Your task to perform on an android device: Go to CNN.com Image 0: 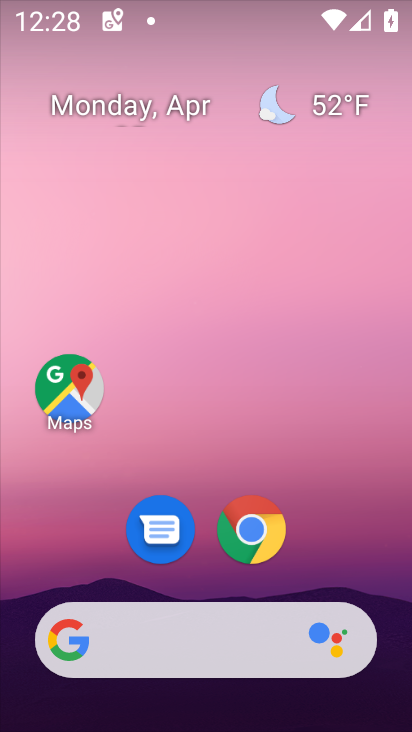
Step 0: click (356, 543)
Your task to perform on an android device: Go to CNN.com Image 1: 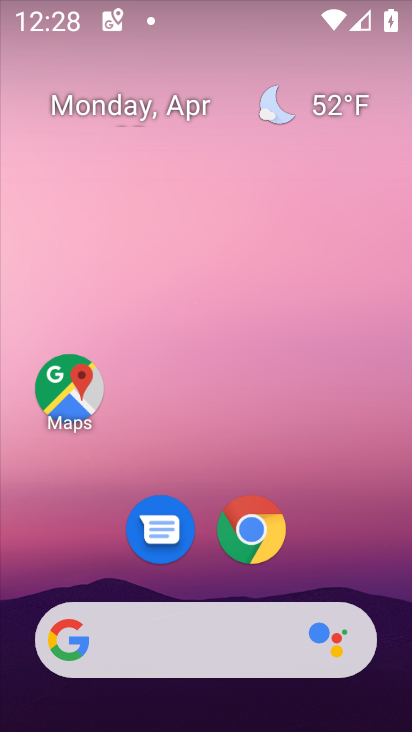
Step 1: drag from (381, 271) to (375, 213)
Your task to perform on an android device: Go to CNN.com Image 2: 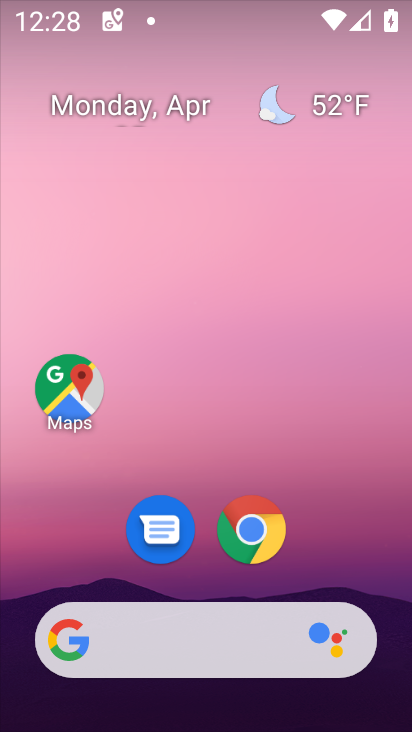
Step 2: drag from (382, 594) to (332, 40)
Your task to perform on an android device: Go to CNN.com Image 3: 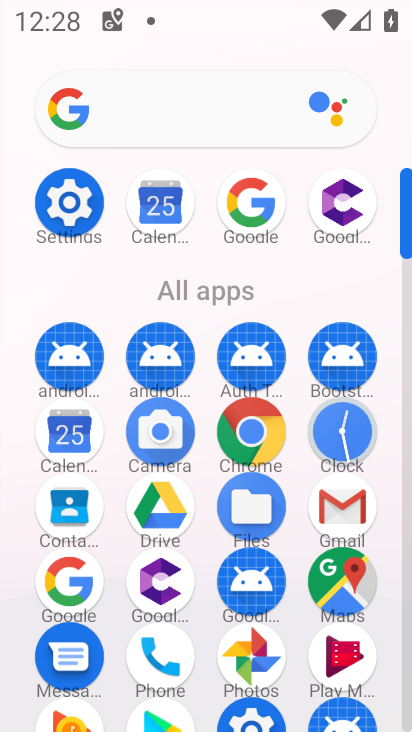
Step 3: click (248, 429)
Your task to perform on an android device: Go to CNN.com Image 4: 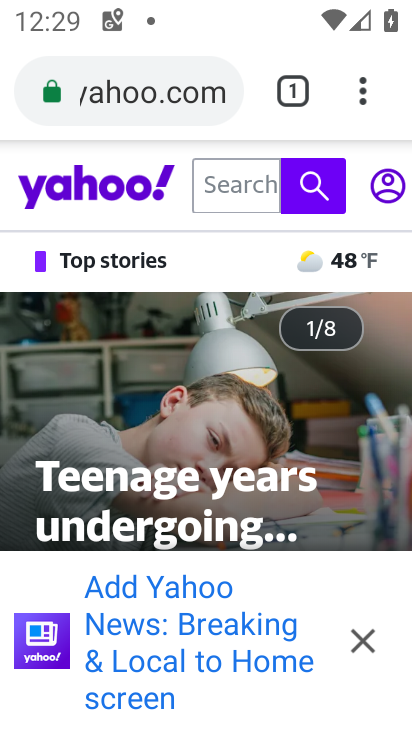
Step 4: click (228, 93)
Your task to perform on an android device: Go to CNN.com Image 5: 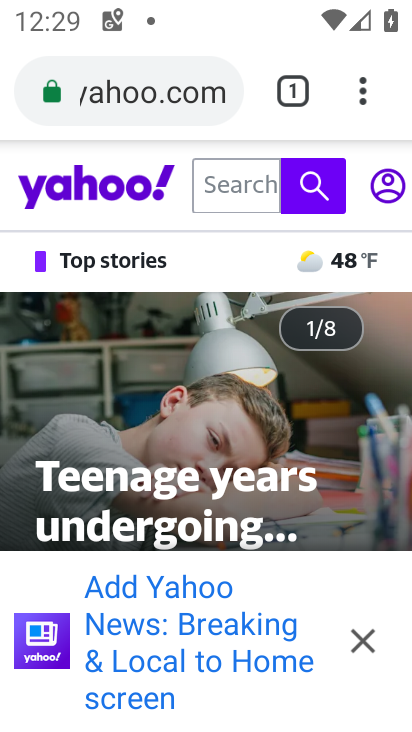
Step 5: click (228, 93)
Your task to perform on an android device: Go to CNN.com Image 6: 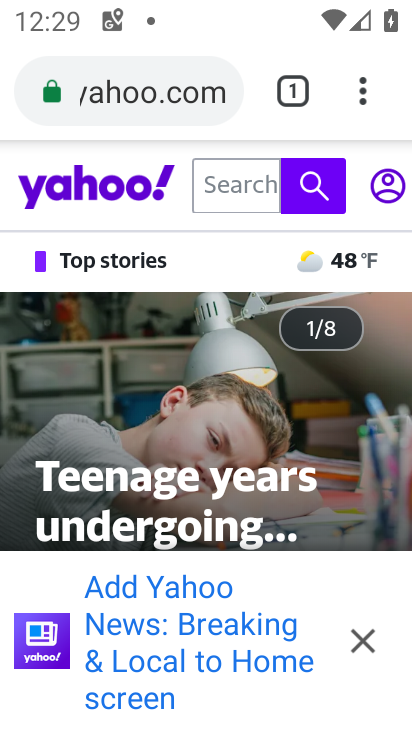
Step 6: click (229, 87)
Your task to perform on an android device: Go to CNN.com Image 7: 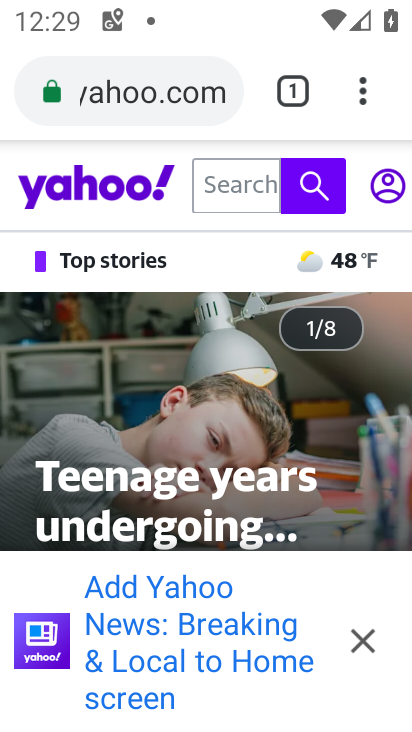
Step 7: click (212, 90)
Your task to perform on an android device: Go to CNN.com Image 8: 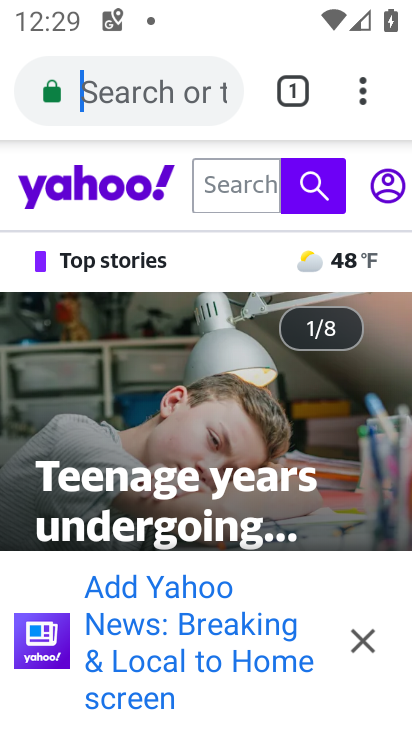
Step 8: click (227, 91)
Your task to perform on an android device: Go to CNN.com Image 9: 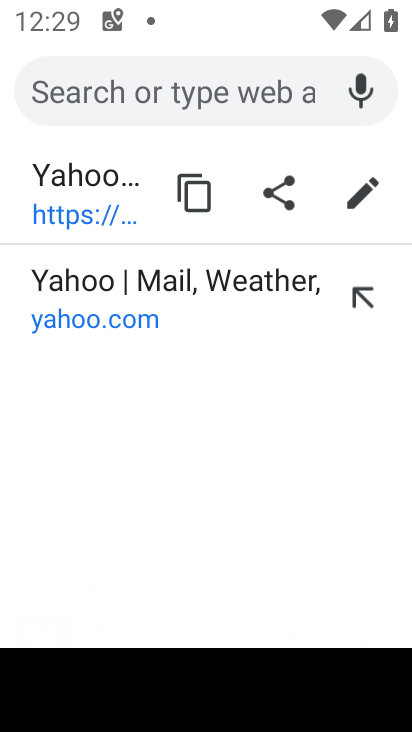
Step 9: type "CNN.com"
Your task to perform on an android device: Go to CNN.com Image 10: 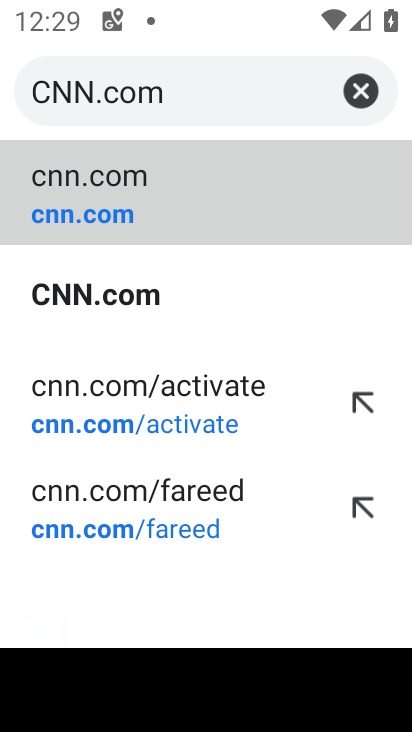
Step 10: click (73, 290)
Your task to perform on an android device: Go to CNN.com Image 11: 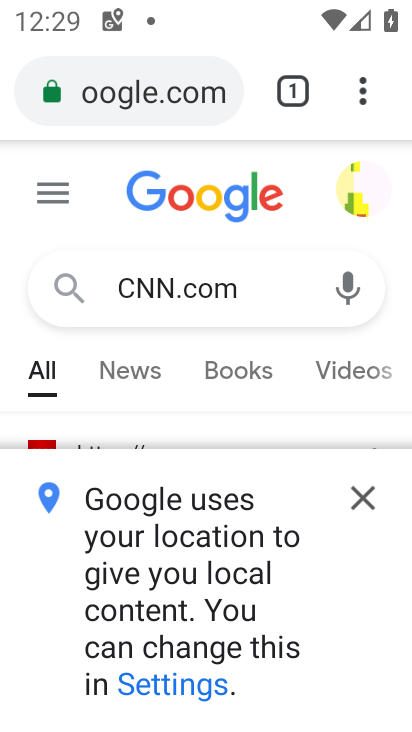
Step 11: click (362, 495)
Your task to perform on an android device: Go to CNN.com Image 12: 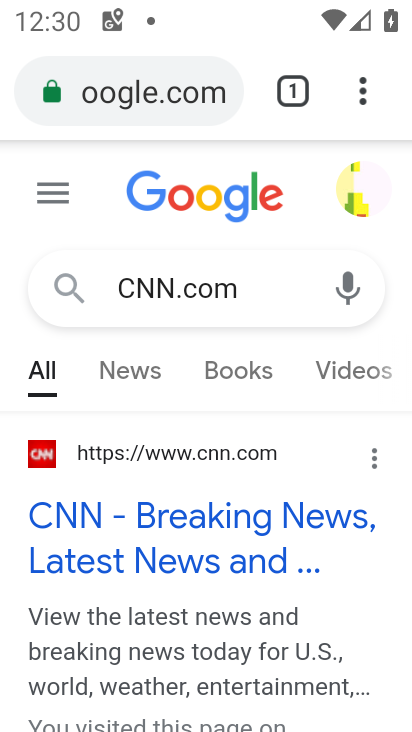
Step 12: task complete